Your task to perform on an android device: toggle wifi Image 0: 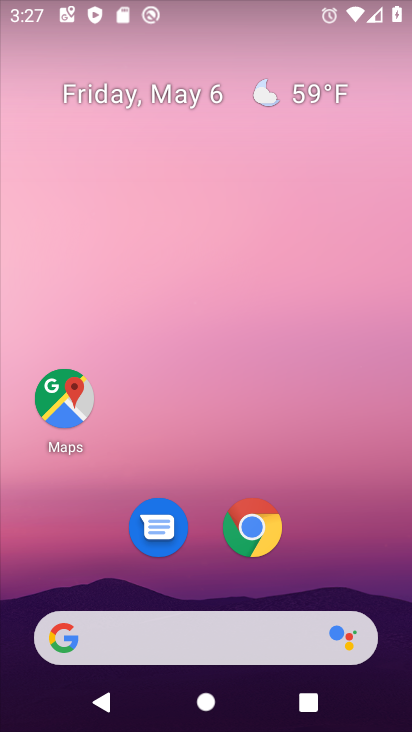
Step 0: drag from (311, 368) to (280, 31)
Your task to perform on an android device: toggle wifi Image 1: 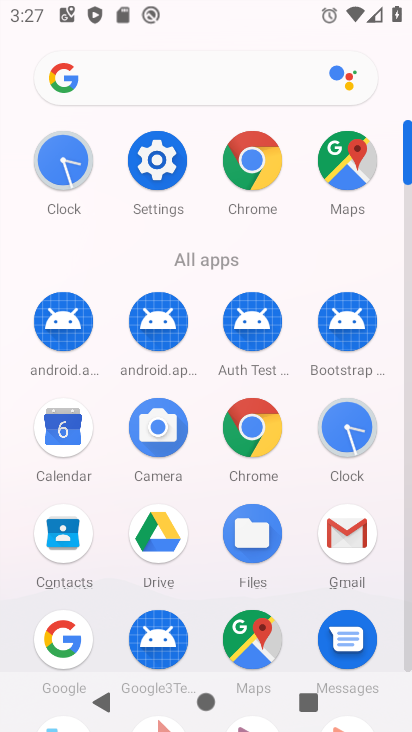
Step 1: click (168, 163)
Your task to perform on an android device: toggle wifi Image 2: 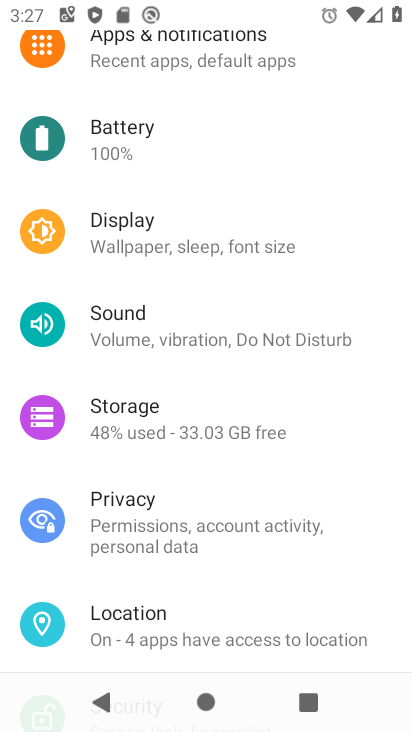
Step 2: drag from (192, 157) to (248, 518)
Your task to perform on an android device: toggle wifi Image 3: 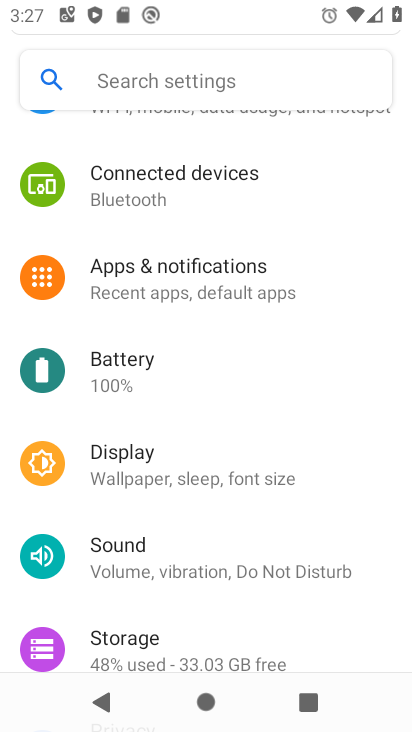
Step 3: drag from (266, 205) to (203, 601)
Your task to perform on an android device: toggle wifi Image 4: 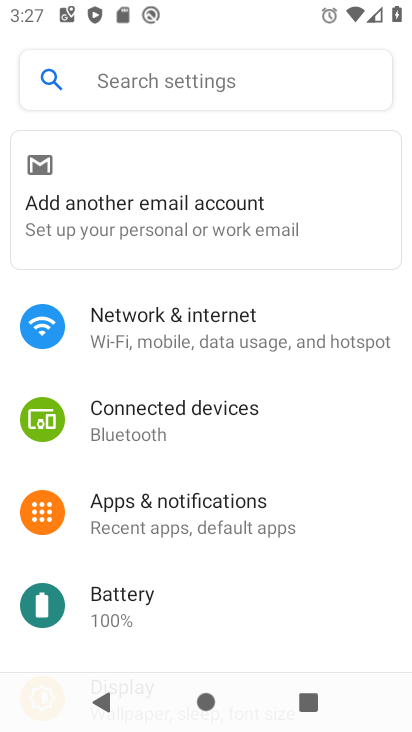
Step 4: click (209, 329)
Your task to perform on an android device: toggle wifi Image 5: 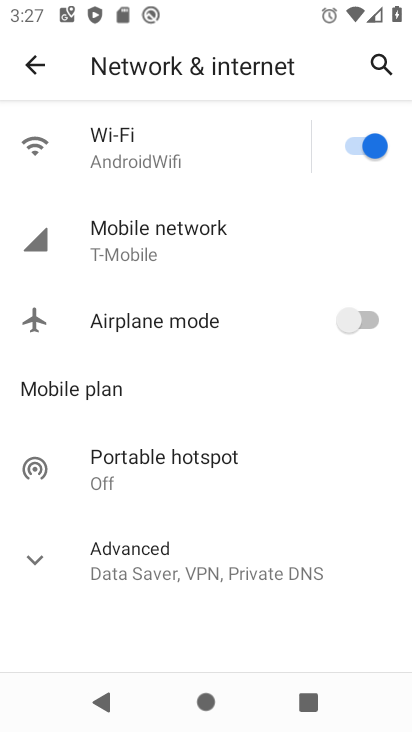
Step 5: click (176, 146)
Your task to perform on an android device: toggle wifi Image 6: 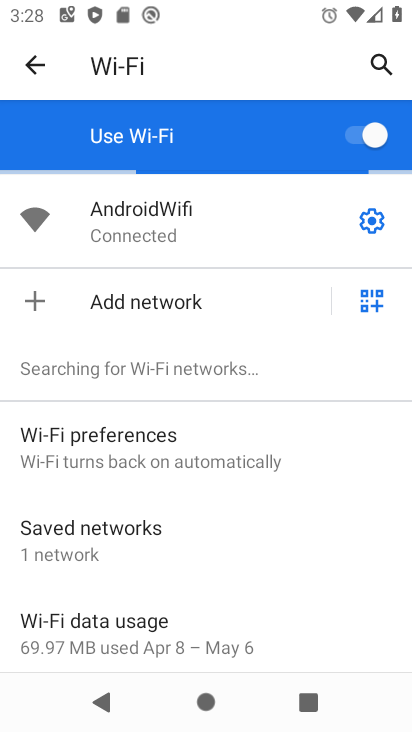
Step 6: click (358, 135)
Your task to perform on an android device: toggle wifi Image 7: 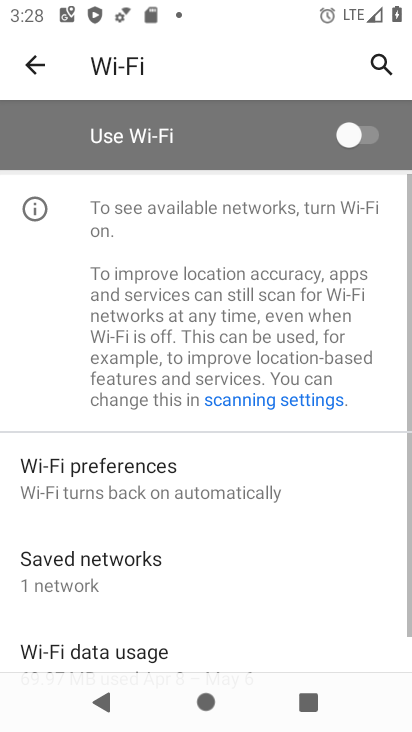
Step 7: task complete